Your task to perform on an android device: Open maps Image 0: 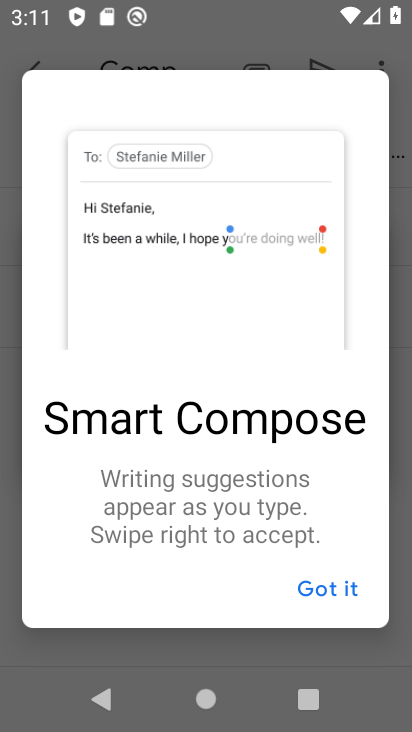
Step 0: press home button
Your task to perform on an android device: Open maps Image 1: 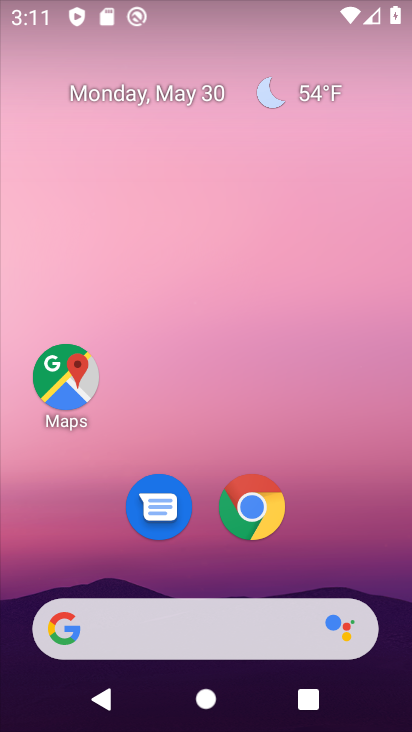
Step 1: click (69, 392)
Your task to perform on an android device: Open maps Image 2: 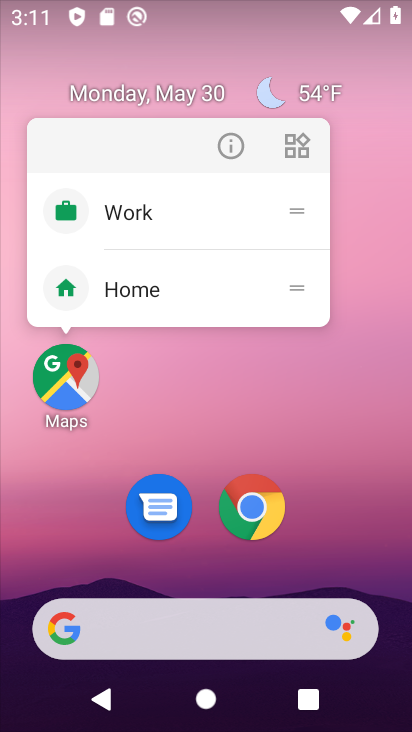
Step 2: click (69, 391)
Your task to perform on an android device: Open maps Image 3: 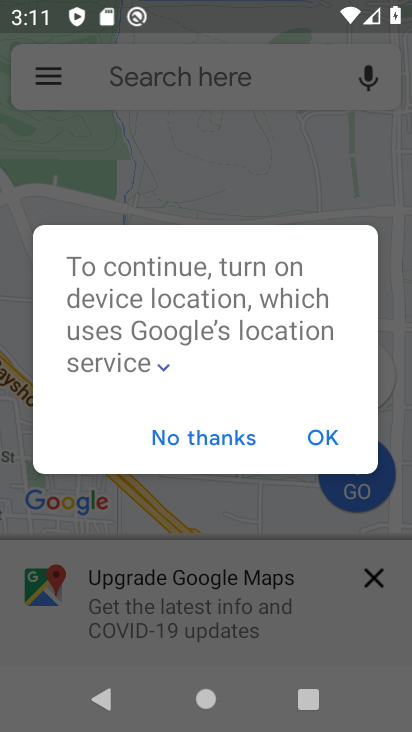
Step 3: click (331, 452)
Your task to perform on an android device: Open maps Image 4: 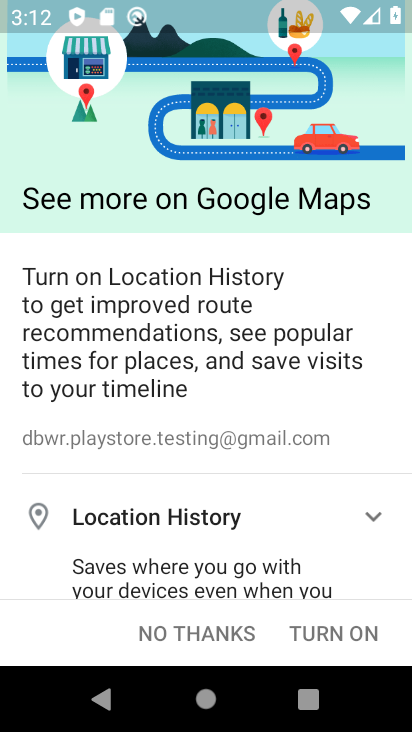
Step 4: click (206, 633)
Your task to perform on an android device: Open maps Image 5: 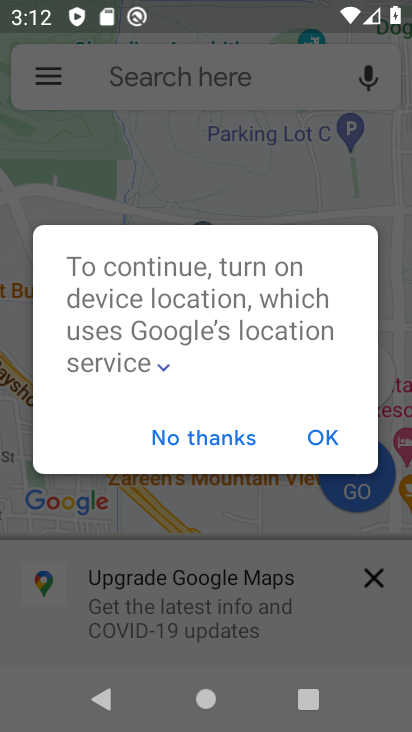
Step 5: click (320, 438)
Your task to perform on an android device: Open maps Image 6: 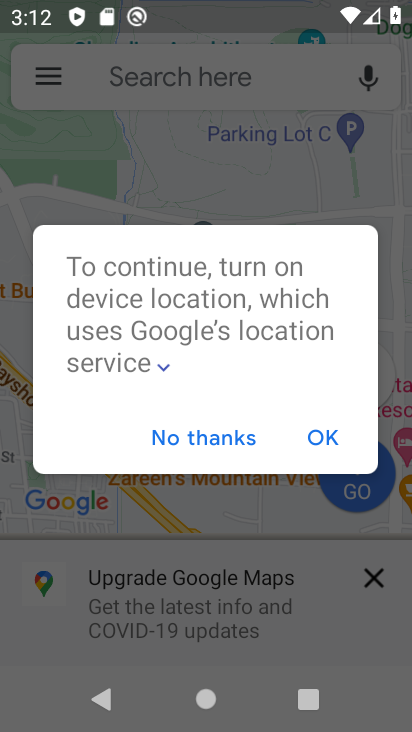
Step 6: click (328, 441)
Your task to perform on an android device: Open maps Image 7: 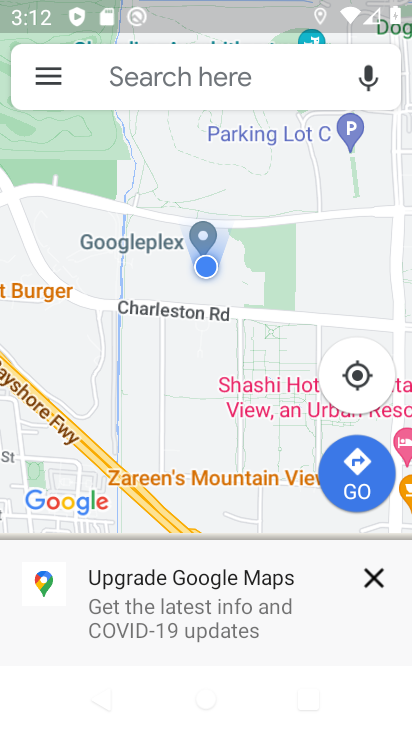
Step 7: click (378, 571)
Your task to perform on an android device: Open maps Image 8: 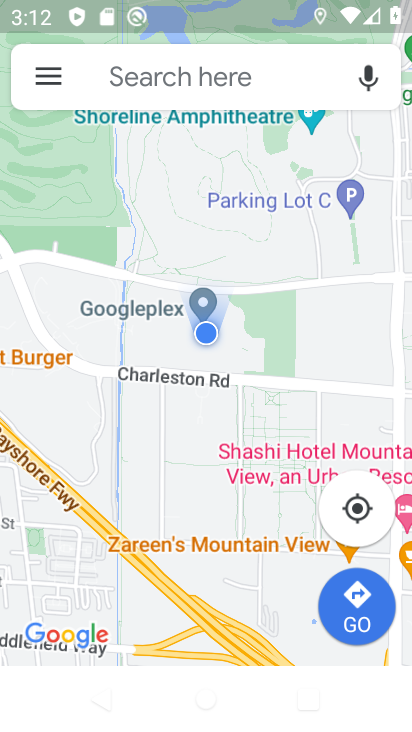
Step 8: task complete